Your task to perform on an android device: Open battery settings Image 0: 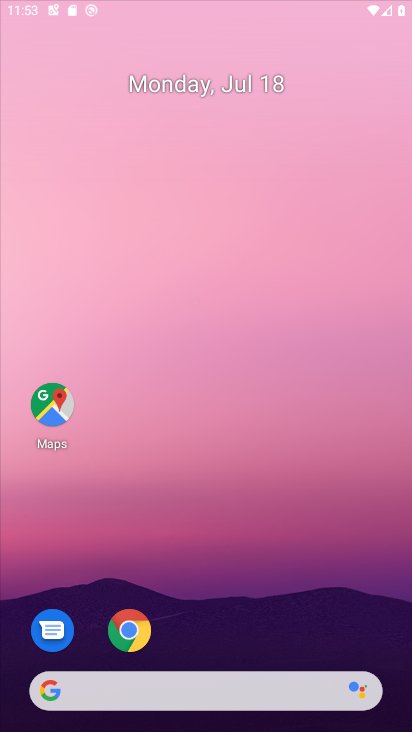
Step 0: drag from (217, 645) to (182, 138)
Your task to perform on an android device: Open battery settings Image 1: 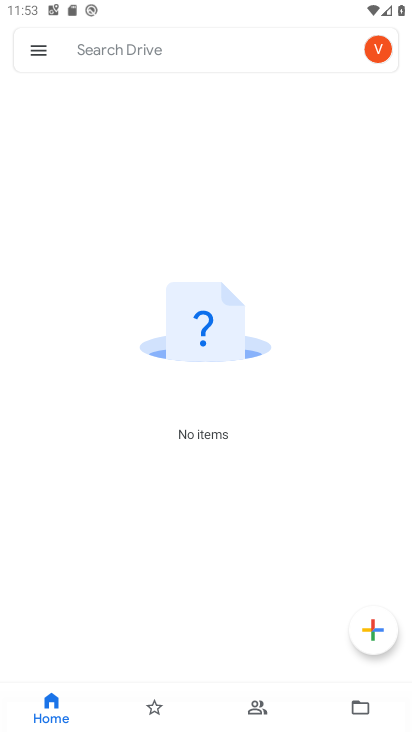
Step 1: press home button
Your task to perform on an android device: Open battery settings Image 2: 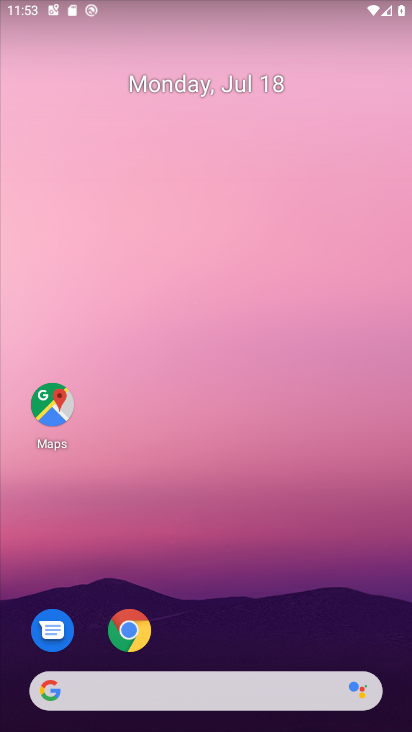
Step 2: drag from (259, 641) to (253, 19)
Your task to perform on an android device: Open battery settings Image 3: 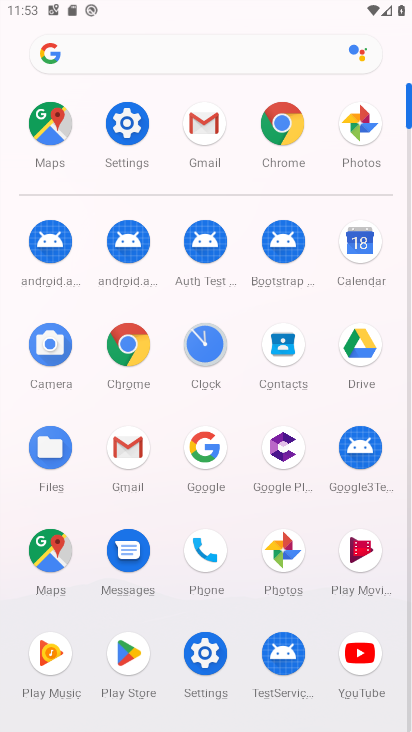
Step 3: click (211, 669)
Your task to perform on an android device: Open battery settings Image 4: 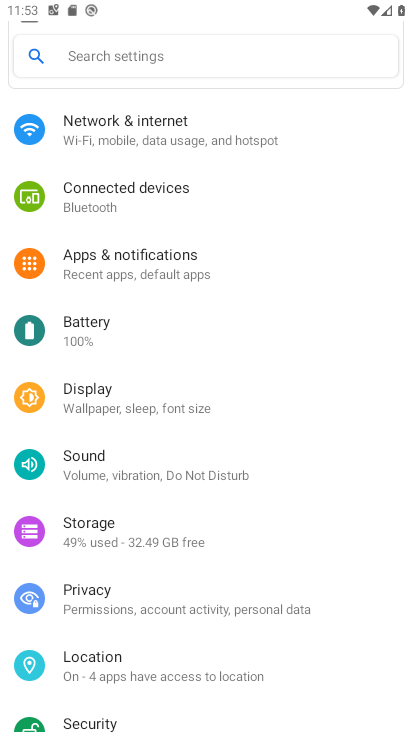
Step 4: click (102, 330)
Your task to perform on an android device: Open battery settings Image 5: 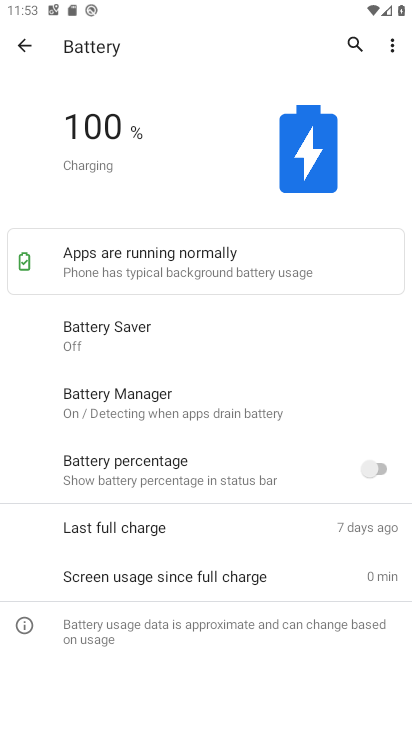
Step 5: task complete